Your task to perform on an android device: Open Wikipedia Image 0: 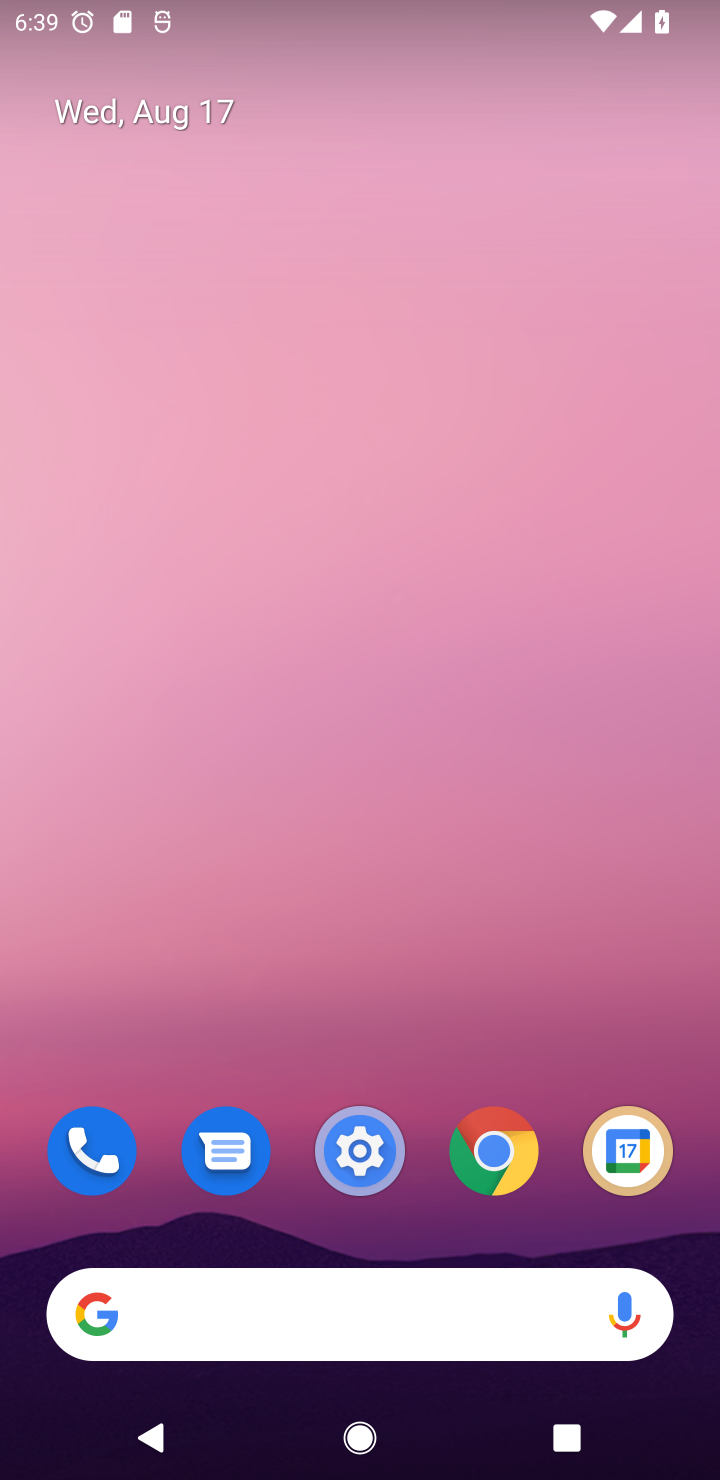
Step 0: click (496, 1168)
Your task to perform on an android device: Open Wikipedia Image 1: 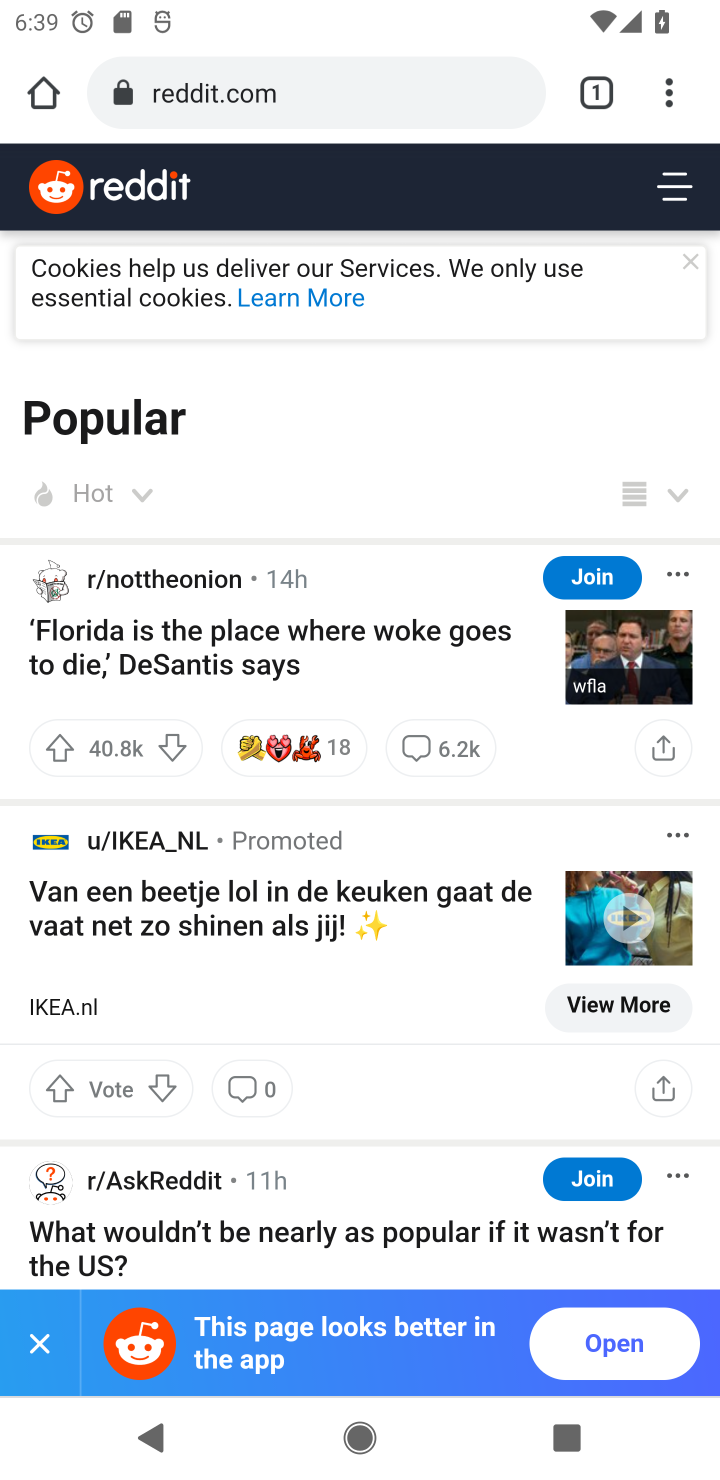
Step 1: click (333, 125)
Your task to perform on an android device: Open Wikipedia Image 2: 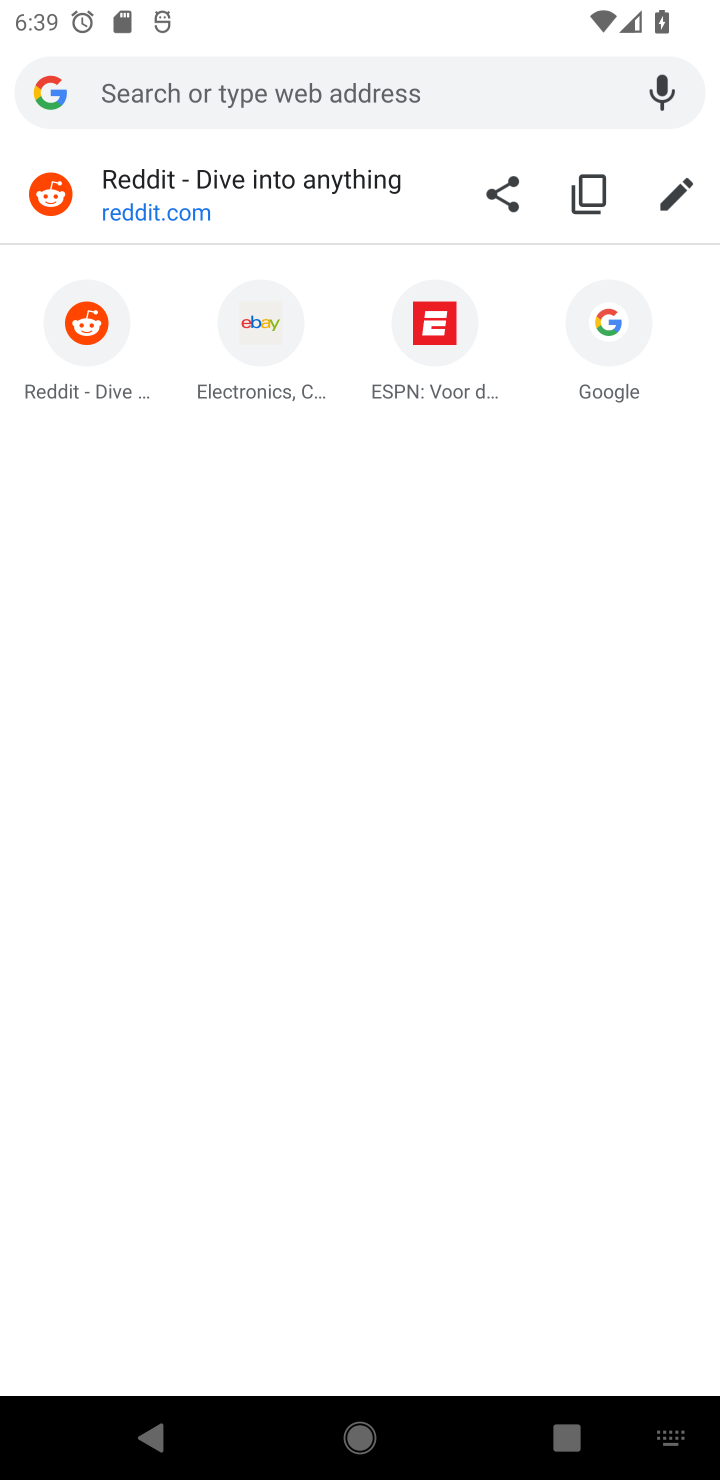
Step 2: type "wikipedia"
Your task to perform on an android device: Open Wikipedia Image 3: 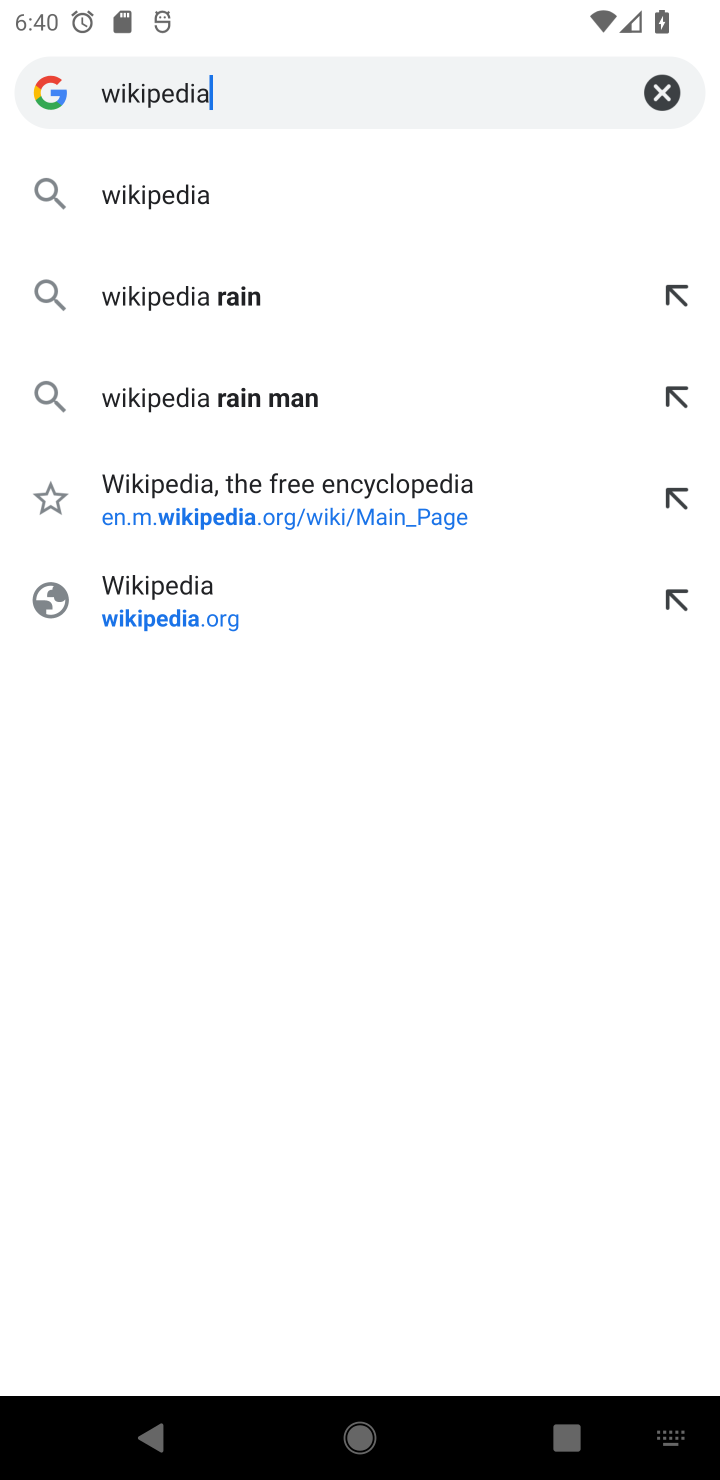
Step 3: click (311, 486)
Your task to perform on an android device: Open Wikipedia Image 4: 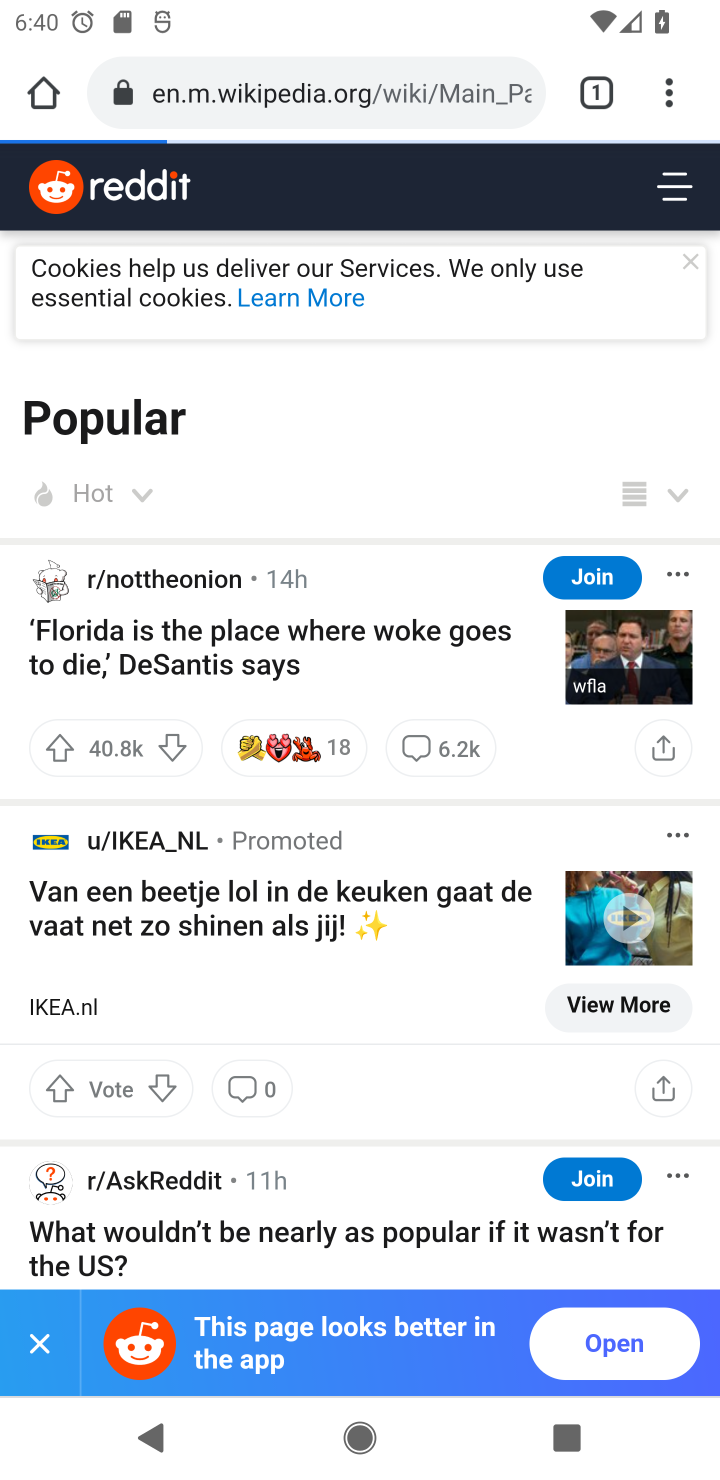
Step 4: task complete